Your task to perform on an android device: Open Amazon Image 0: 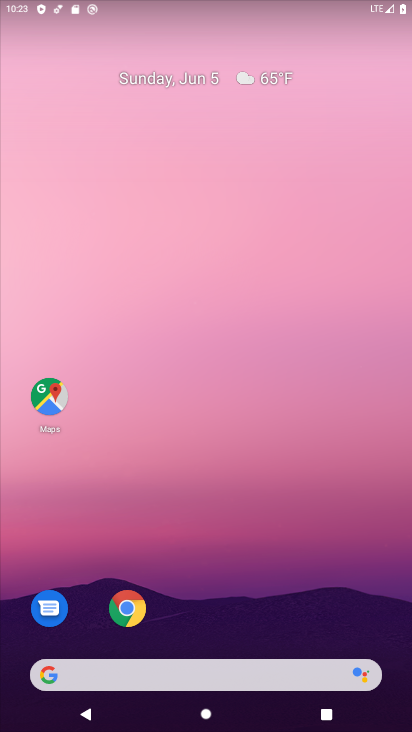
Step 0: click (126, 621)
Your task to perform on an android device: Open Amazon Image 1: 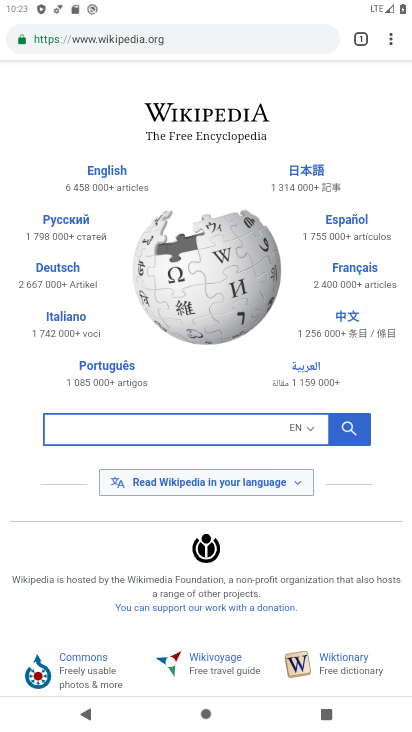
Step 1: click (160, 35)
Your task to perform on an android device: Open Amazon Image 2: 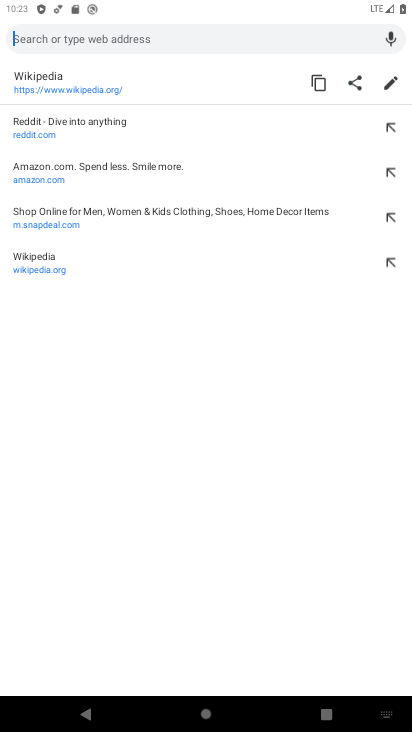
Step 2: click (105, 163)
Your task to perform on an android device: Open Amazon Image 3: 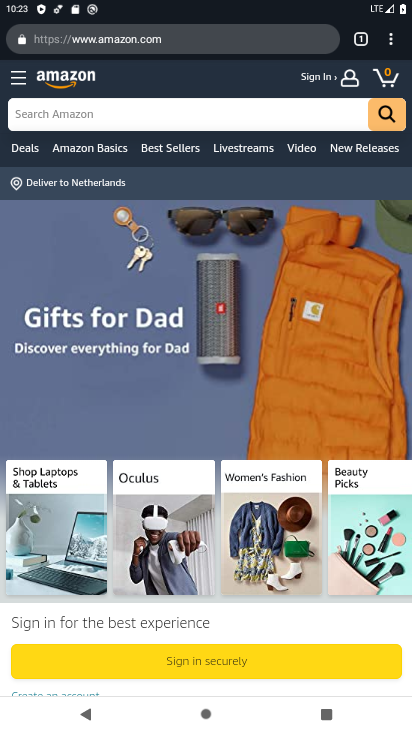
Step 3: task complete